Your task to perform on an android device: Open the calendar and show me this week's events? Image 0: 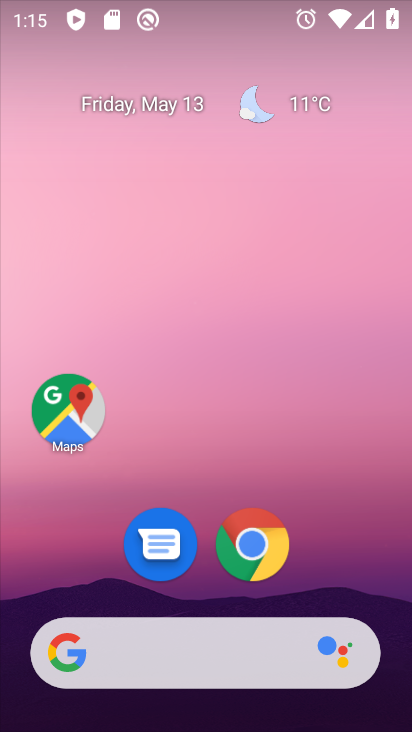
Step 0: drag from (206, 544) to (237, 193)
Your task to perform on an android device: Open the calendar and show me this week's events? Image 1: 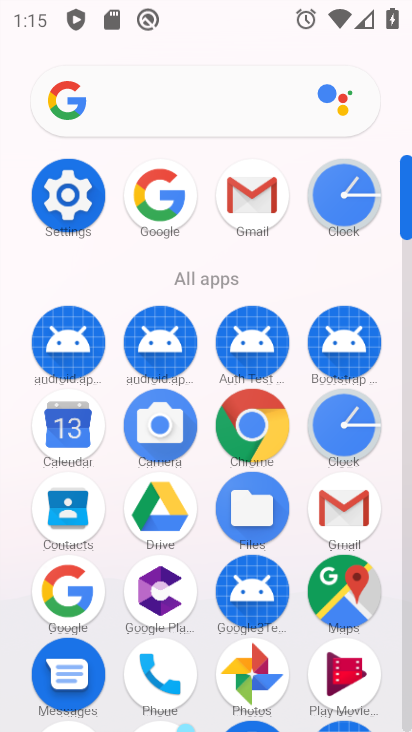
Step 1: click (63, 430)
Your task to perform on an android device: Open the calendar and show me this week's events? Image 2: 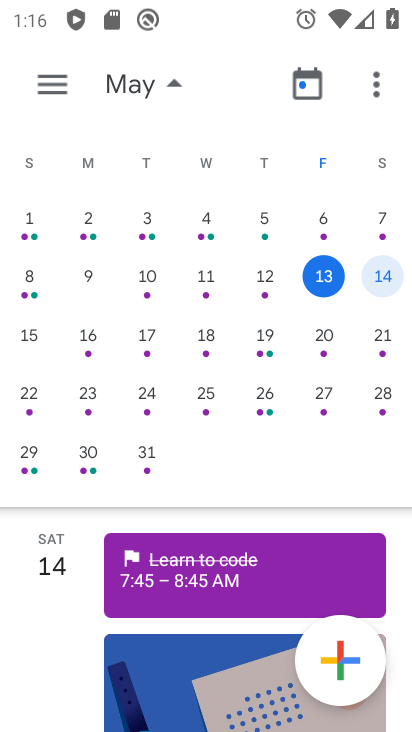
Step 2: click (381, 282)
Your task to perform on an android device: Open the calendar and show me this week's events? Image 3: 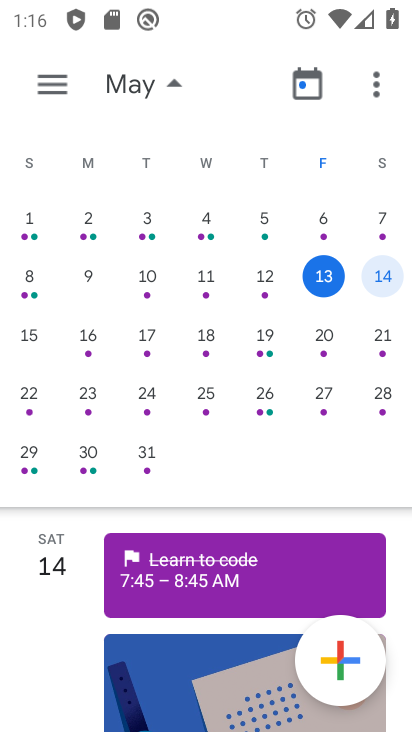
Step 3: click (29, 338)
Your task to perform on an android device: Open the calendar and show me this week's events? Image 4: 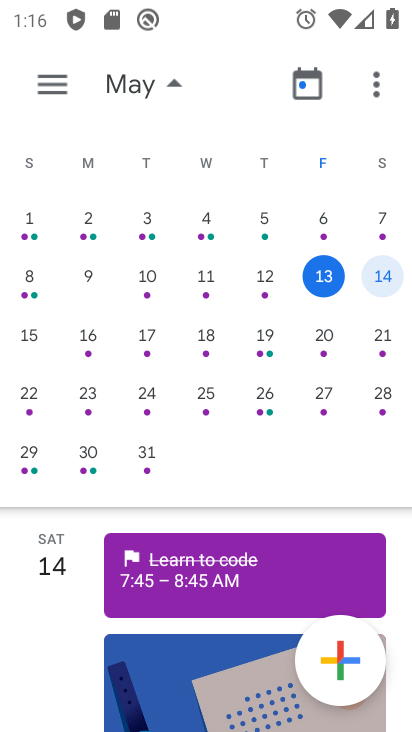
Step 4: click (78, 343)
Your task to perform on an android device: Open the calendar and show me this week's events? Image 5: 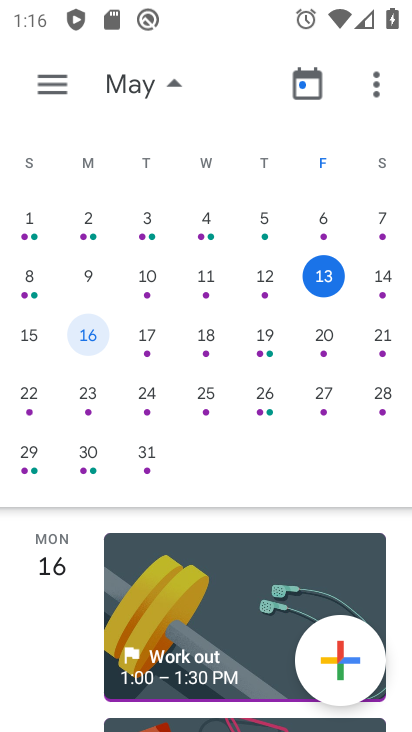
Step 5: click (134, 342)
Your task to perform on an android device: Open the calendar and show me this week's events? Image 6: 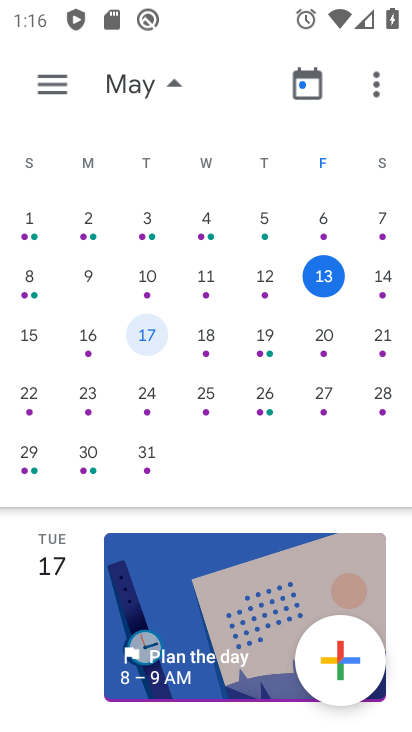
Step 6: click (201, 342)
Your task to perform on an android device: Open the calendar and show me this week's events? Image 7: 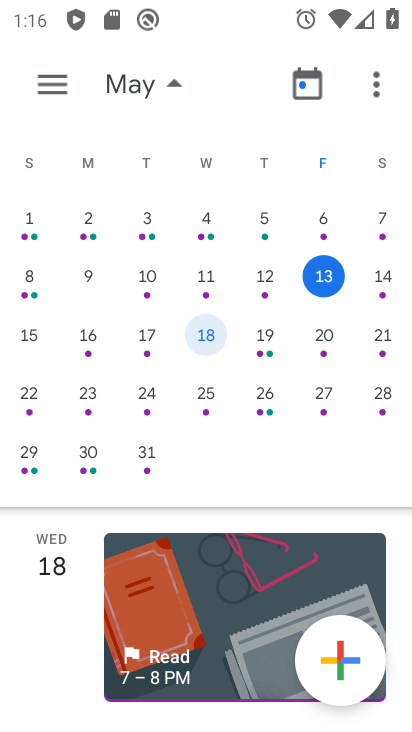
Step 7: click (268, 342)
Your task to perform on an android device: Open the calendar and show me this week's events? Image 8: 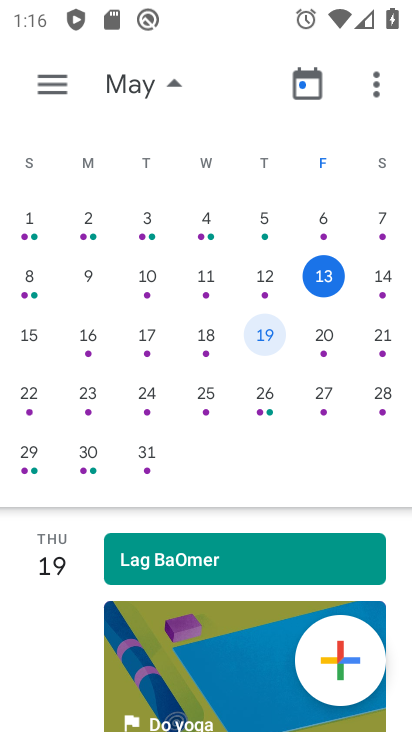
Step 8: click (334, 342)
Your task to perform on an android device: Open the calendar and show me this week's events? Image 9: 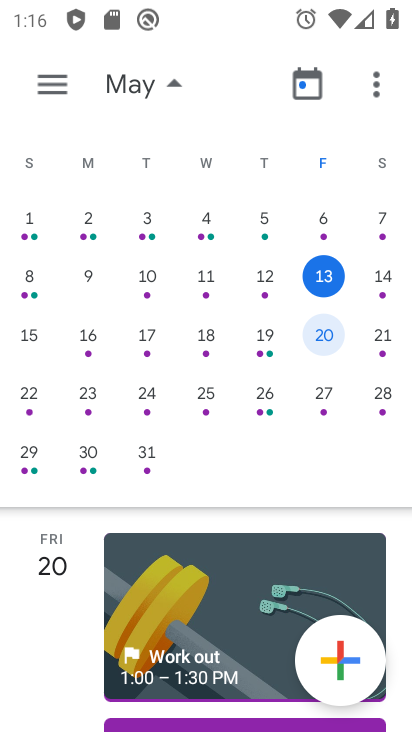
Step 9: task complete